Your task to perform on an android device: Open privacy settings Image 0: 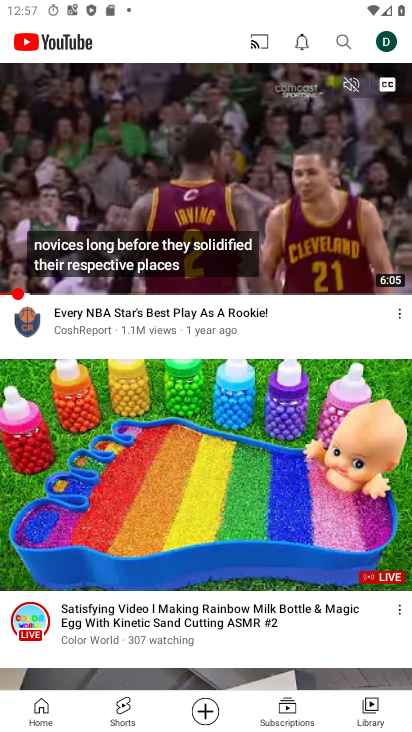
Step 0: press home button
Your task to perform on an android device: Open privacy settings Image 1: 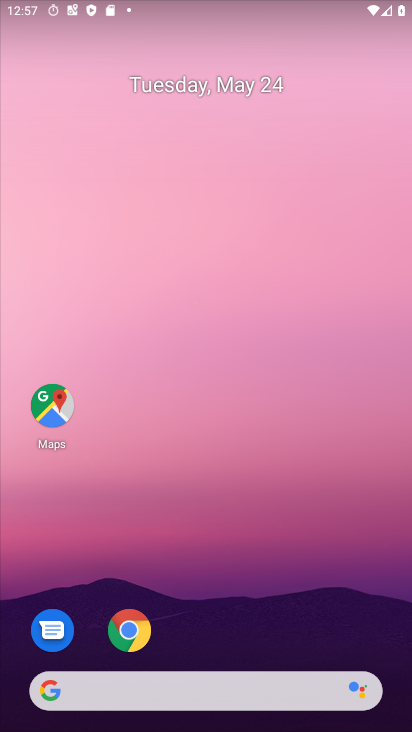
Step 1: drag from (251, 653) to (261, 0)
Your task to perform on an android device: Open privacy settings Image 2: 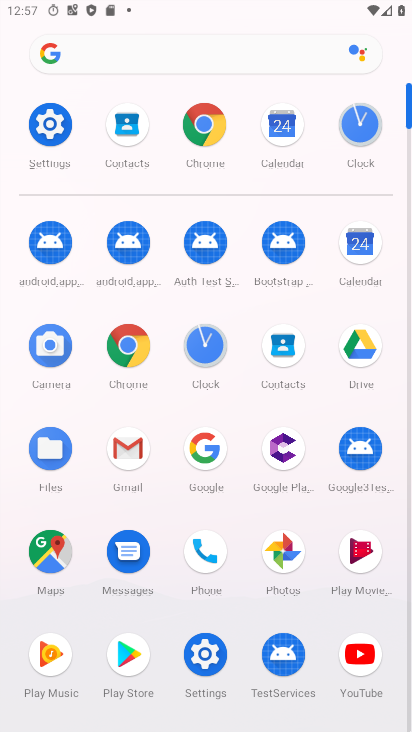
Step 2: click (51, 133)
Your task to perform on an android device: Open privacy settings Image 3: 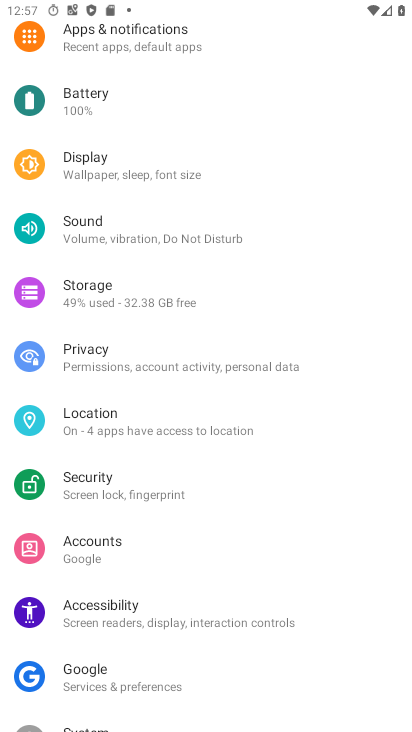
Step 3: click (104, 362)
Your task to perform on an android device: Open privacy settings Image 4: 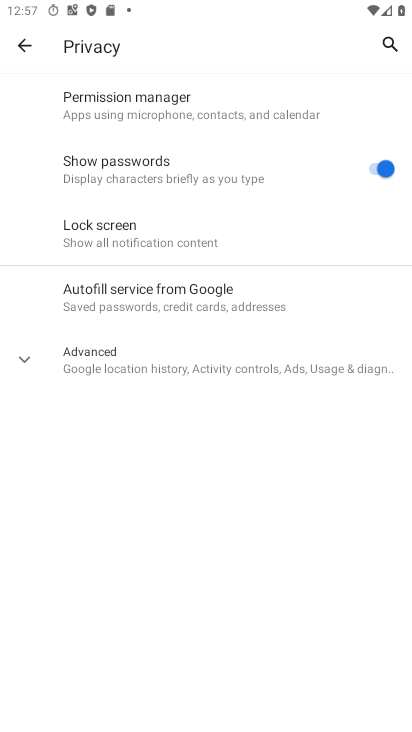
Step 4: task complete